Your task to perform on an android device: Find coffee shops on Maps Image 0: 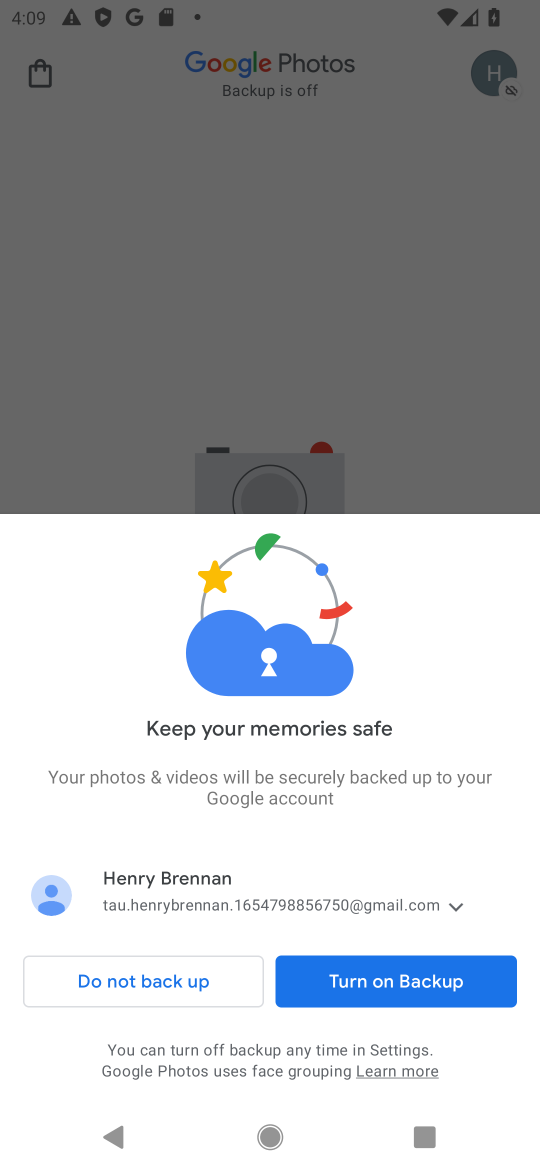
Step 0: press home button
Your task to perform on an android device: Find coffee shops on Maps Image 1: 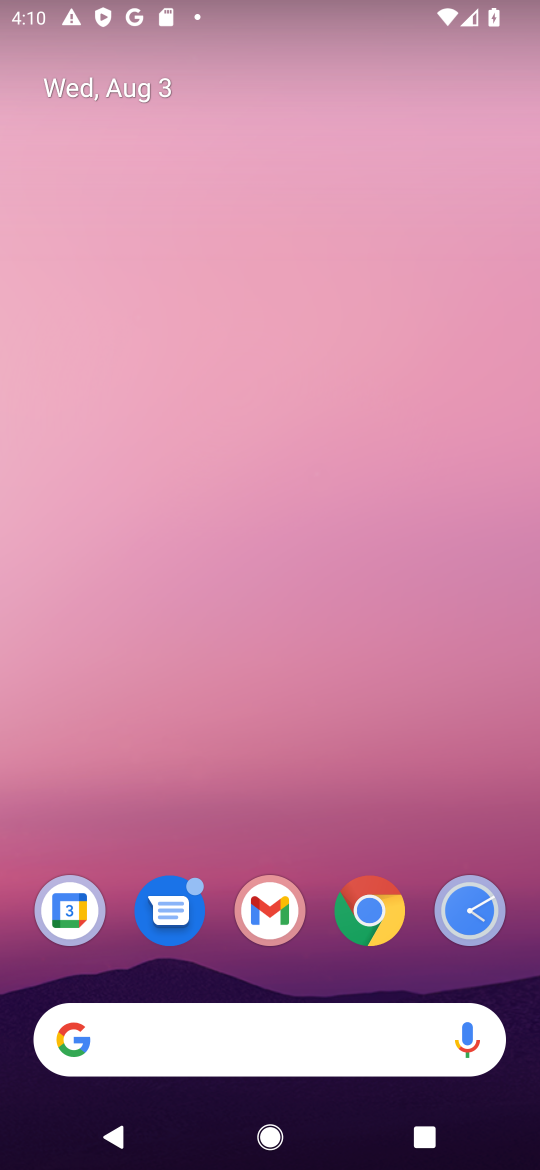
Step 1: drag from (61, 994) to (252, 296)
Your task to perform on an android device: Find coffee shops on Maps Image 2: 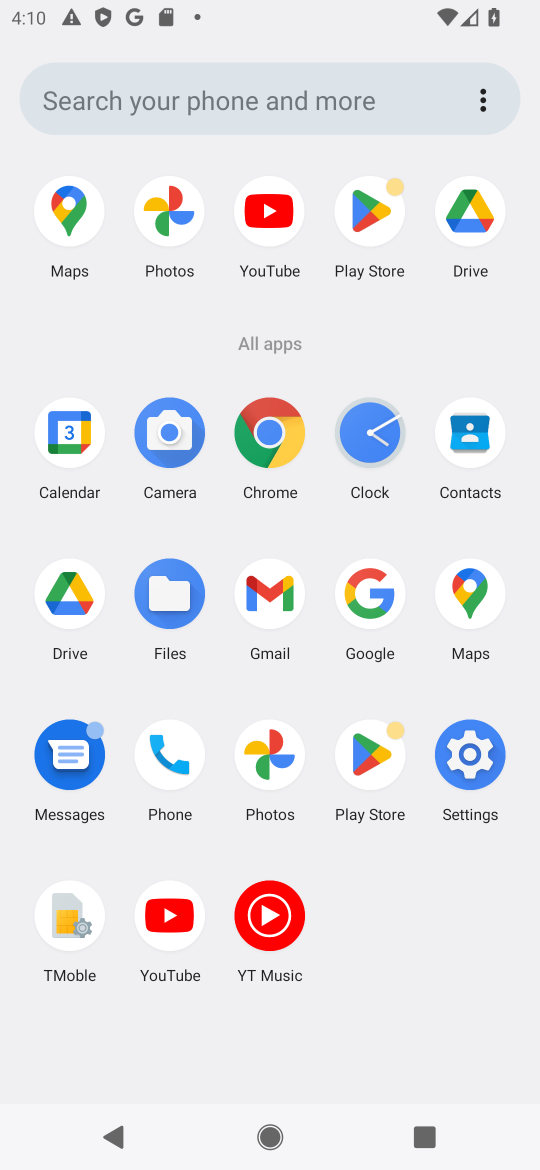
Step 2: click (70, 232)
Your task to perform on an android device: Find coffee shops on Maps Image 3: 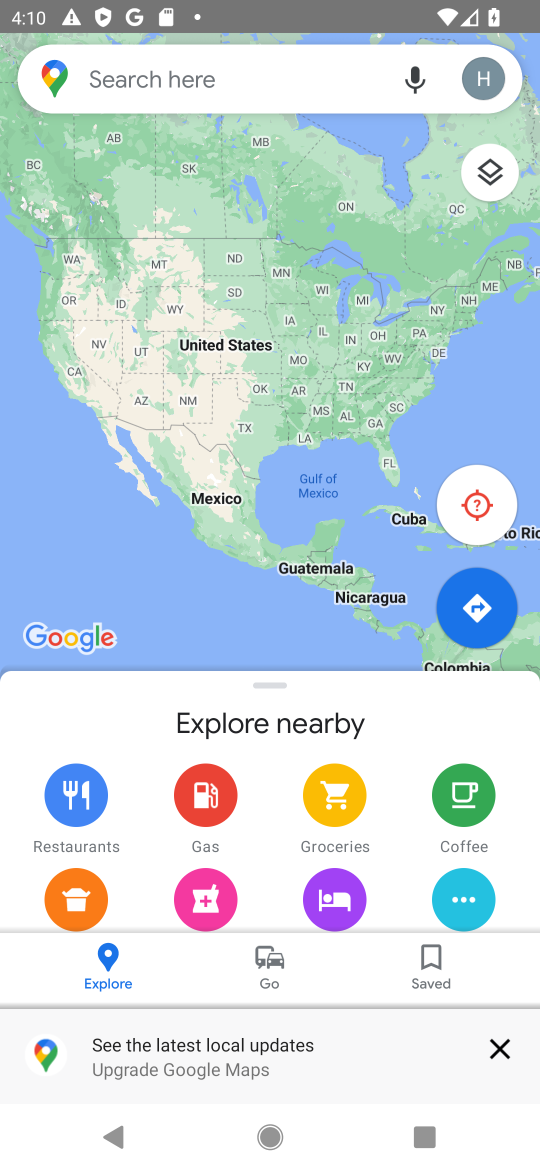
Step 3: click (108, 87)
Your task to perform on an android device: Find coffee shops on Maps Image 4: 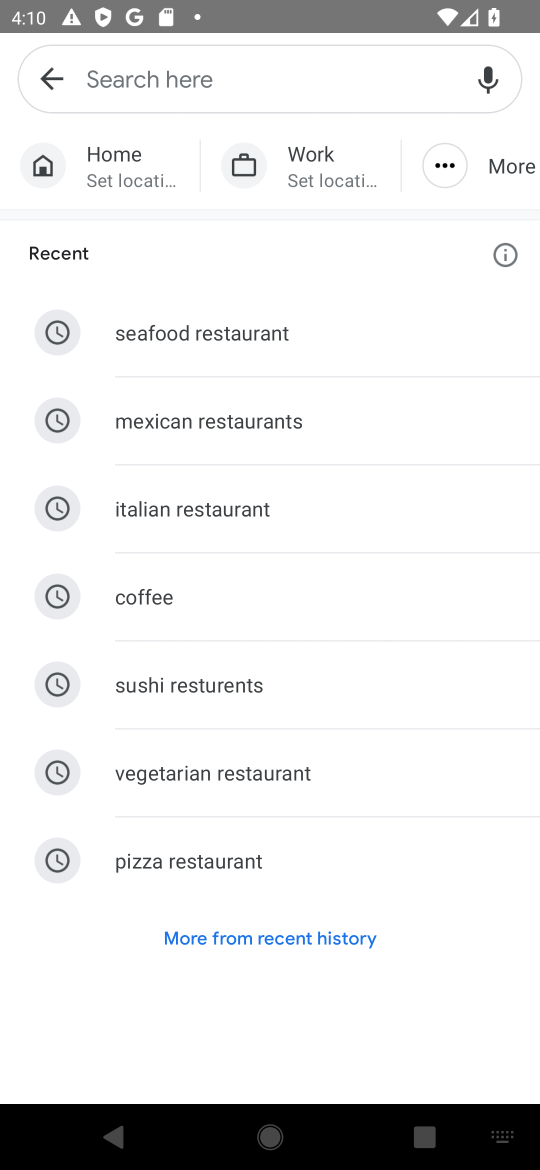
Step 4: type "coffee shops"
Your task to perform on an android device: Find coffee shops on Maps Image 5: 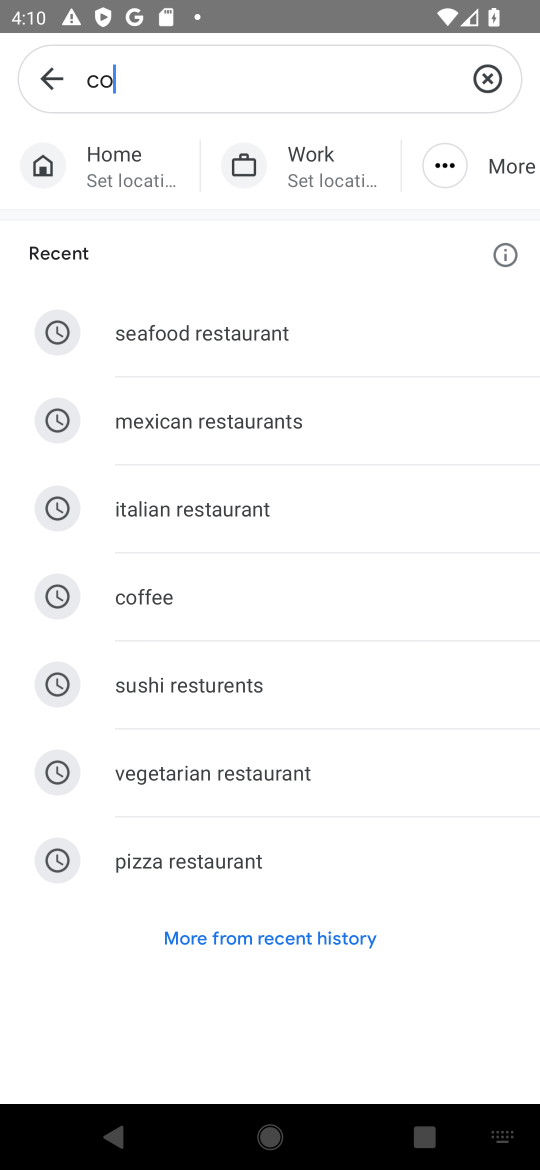
Step 5: type ""
Your task to perform on an android device: Find coffee shops on Maps Image 6: 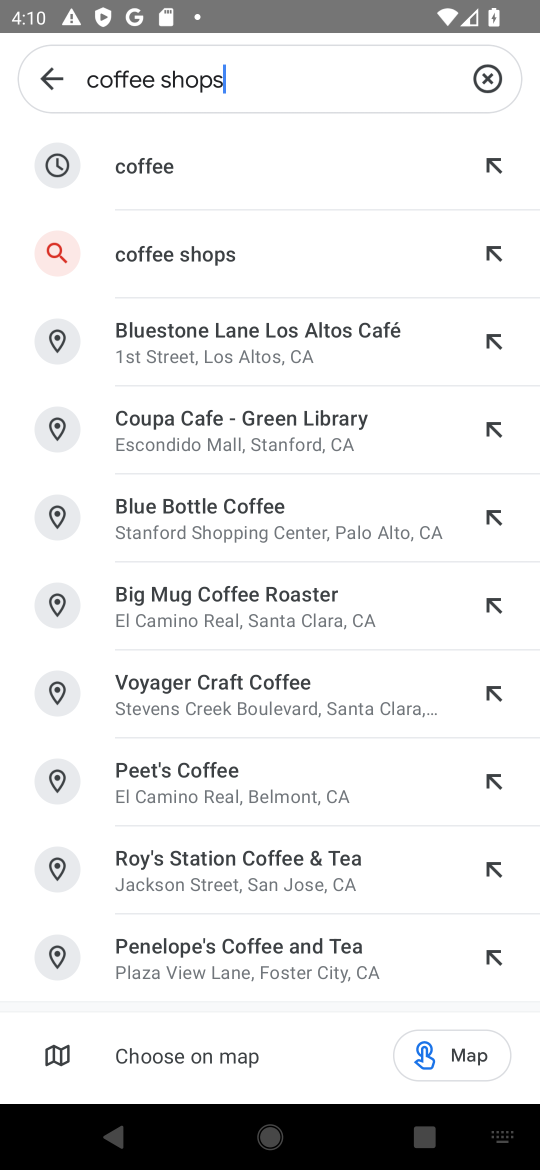
Step 6: click (176, 250)
Your task to perform on an android device: Find coffee shops on Maps Image 7: 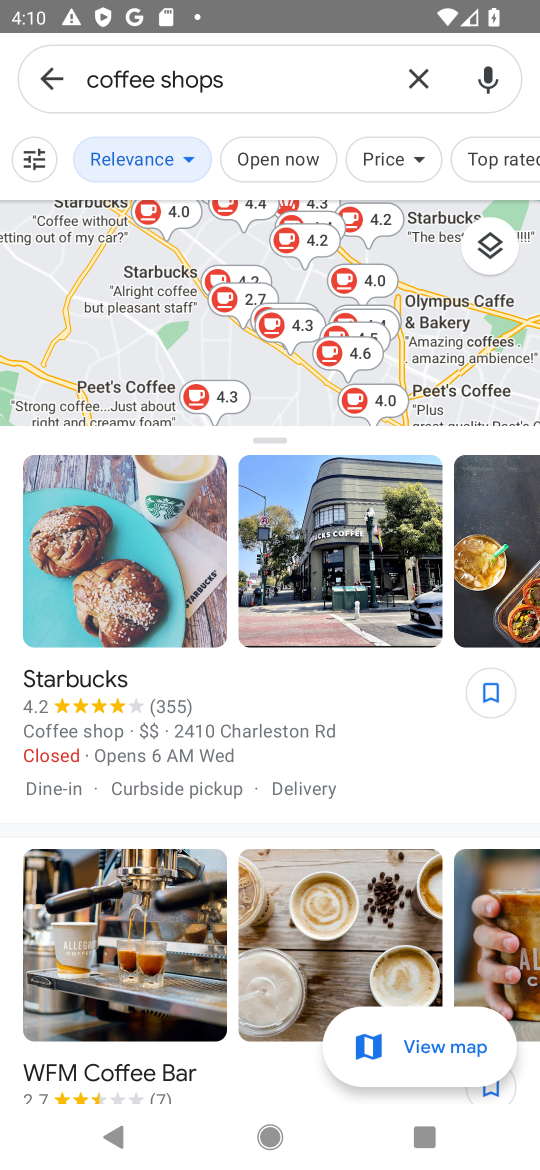
Step 7: task complete